Your task to perform on an android device: open device folders in google photos Image 0: 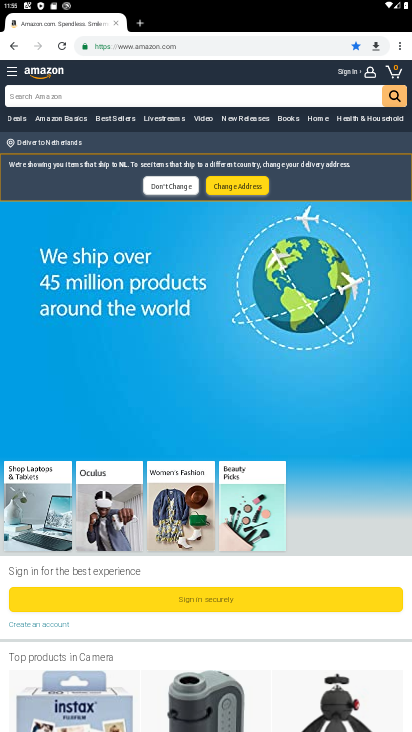
Step 0: press home button
Your task to perform on an android device: open device folders in google photos Image 1: 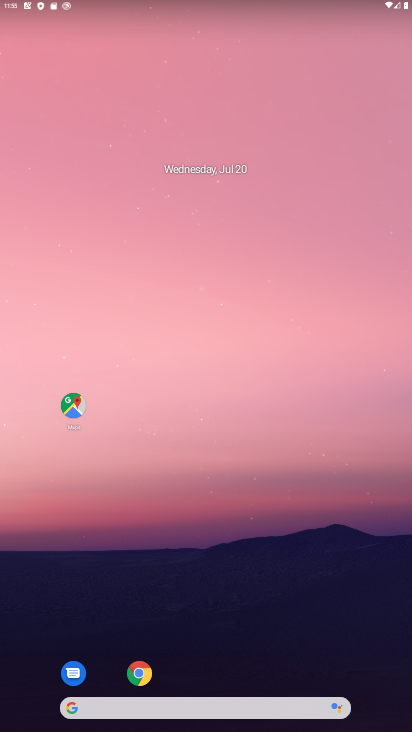
Step 1: drag from (201, 530) to (189, 20)
Your task to perform on an android device: open device folders in google photos Image 2: 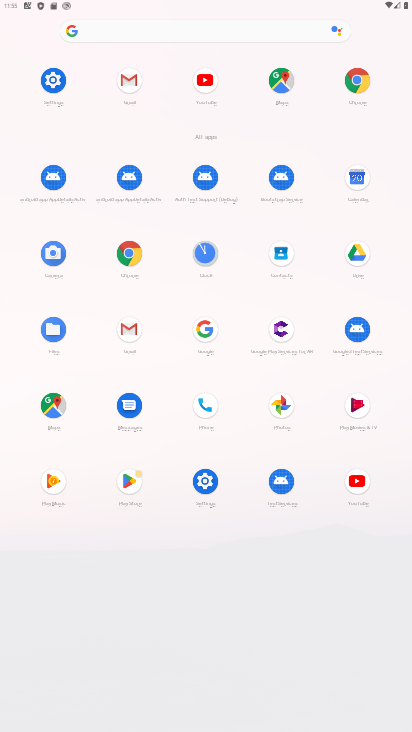
Step 2: click (275, 404)
Your task to perform on an android device: open device folders in google photos Image 3: 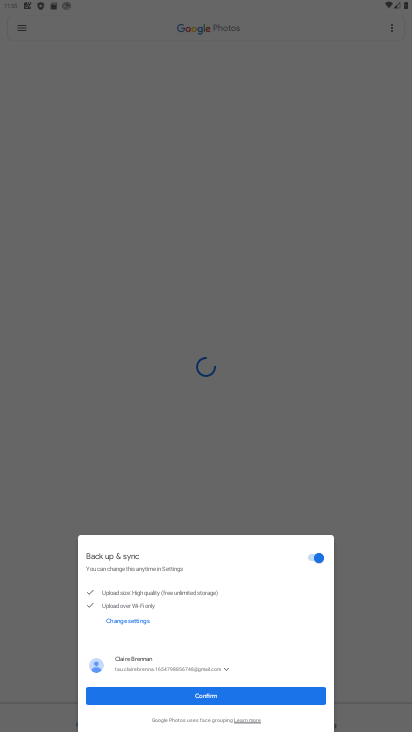
Step 3: click (207, 698)
Your task to perform on an android device: open device folders in google photos Image 4: 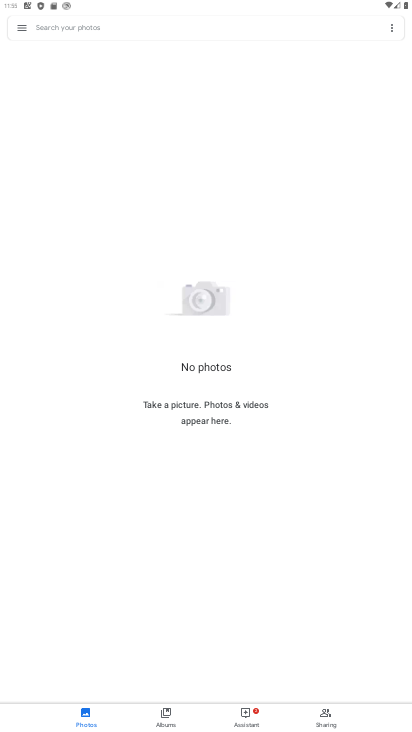
Step 4: click (27, 28)
Your task to perform on an android device: open device folders in google photos Image 5: 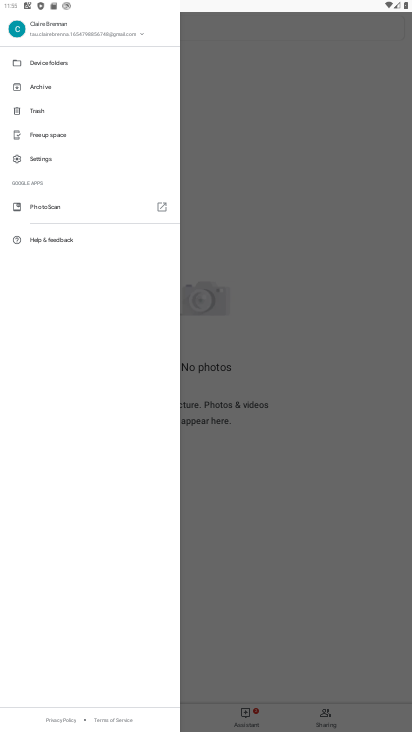
Step 5: click (62, 64)
Your task to perform on an android device: open device folders in google photos Image 6: 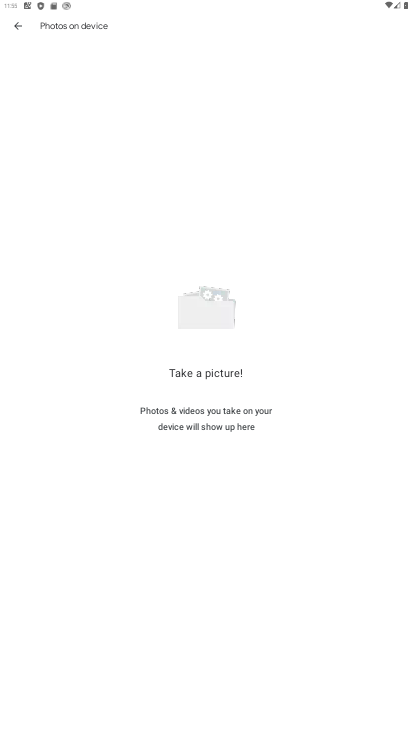
Step 6: task complete